Your task to perform on an android device: Go to network settings Image 0: 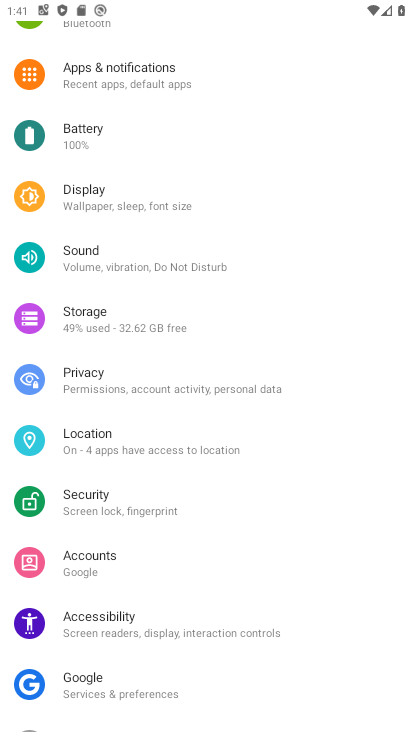
Step 0: press home button
Your task to perform on an android device: Go to network settings Image 1: 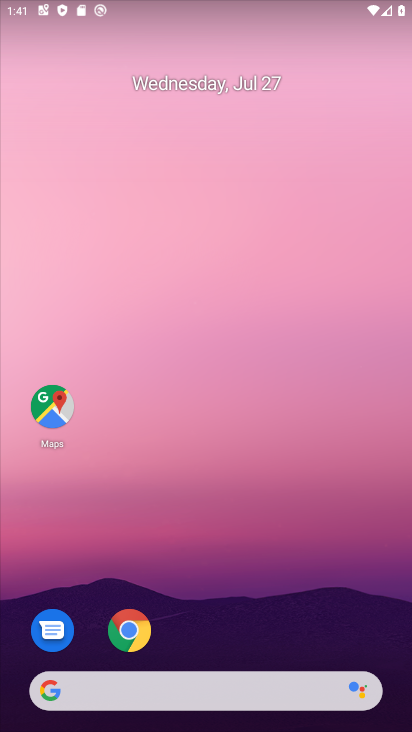
Step 1: drag from (389, 644) to (343, 81)
Your task to perform on an android device: Go to network settings Image 2: 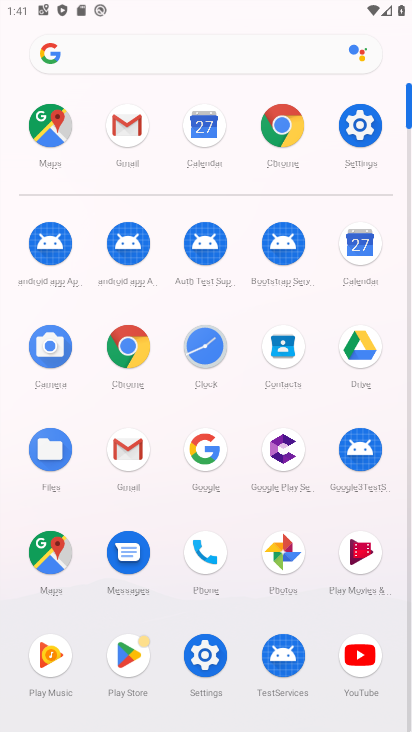
Step 2: click (206, 656)
Your task to perform on an android device: Go to network settings Image 3: 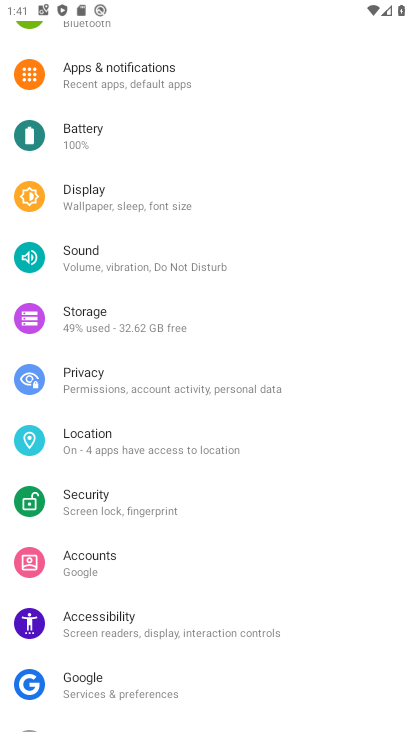
Step 3: drag from (236, 106) to (252, 321)
Your task to perform on an android device: Go to network settings Image 4: 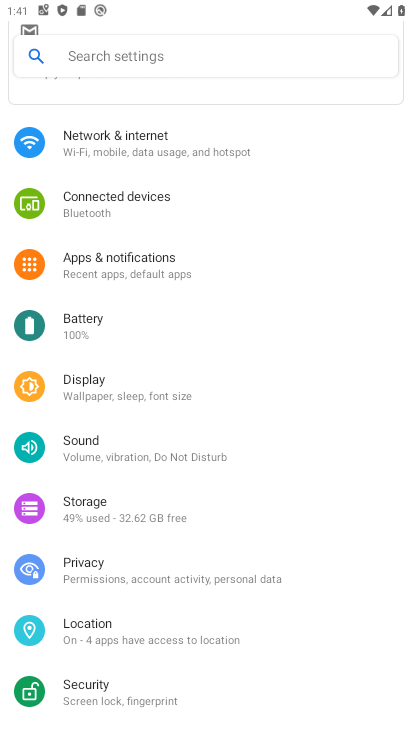
Step 4: click (104, 135)
Your task to perform on an android device: Go to network settings Image 5: 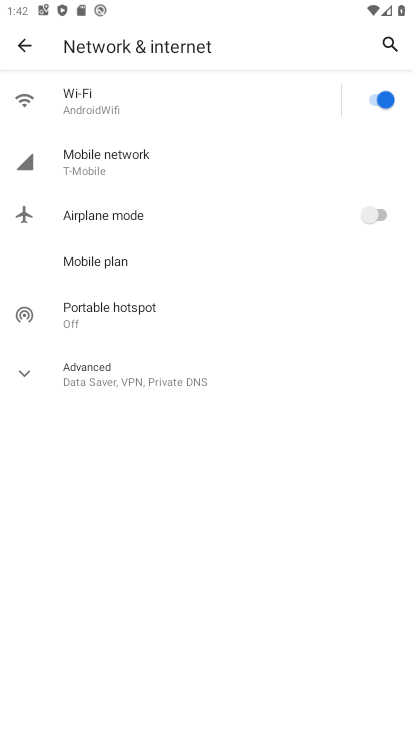
Step 5: click (73, 151)
Your task to perform on an android device: Go to network settings Image 6: 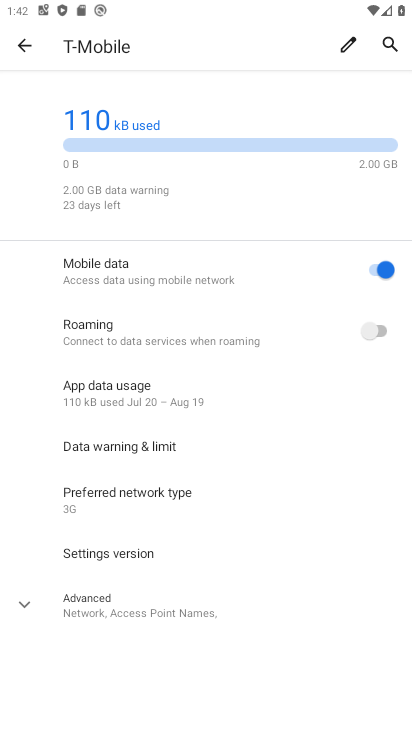
Step 6: click (25, 602)
Your task to perform on an android device: Go to network settings Image 7: 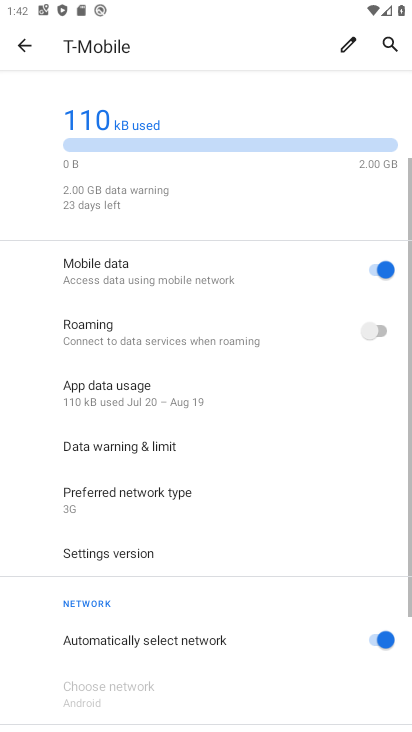
Step 7: task complete